Your task to perform on an android device: empty trash in the gmail app Image 0: 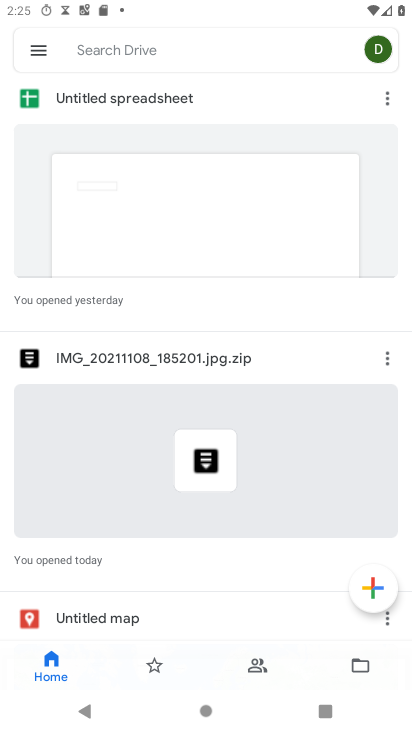
Step 0: press home button
Your task to perform on an android device: empty trash in the gmail app Image 1: 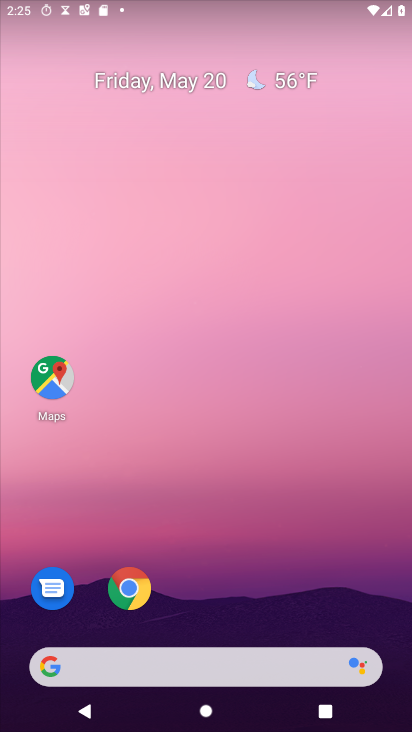
Step 1: drag from (34, 590) to (221, 238)
Your task to perform on an android device: empty trash in the gmail app Image 2: 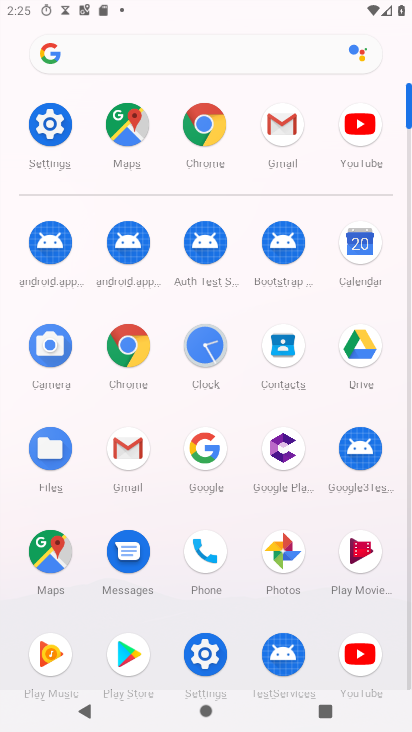
Step 2: click (108, 458)
Your task to perform on an android device: empty trash in the gmail app Image 3: 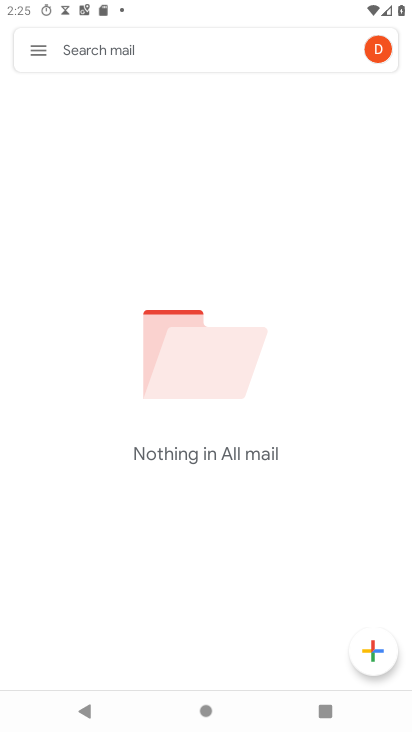
Step 3: click (32, 51)
Your task to perform on an android device: empty trash in the gmail app Image 4: 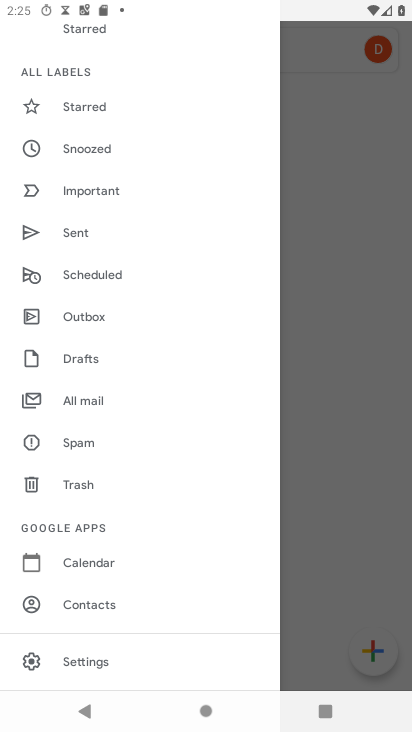
Step 4: click (104, 490)
Your task to perform on an android device: empty trash in the gmail app Image 5: 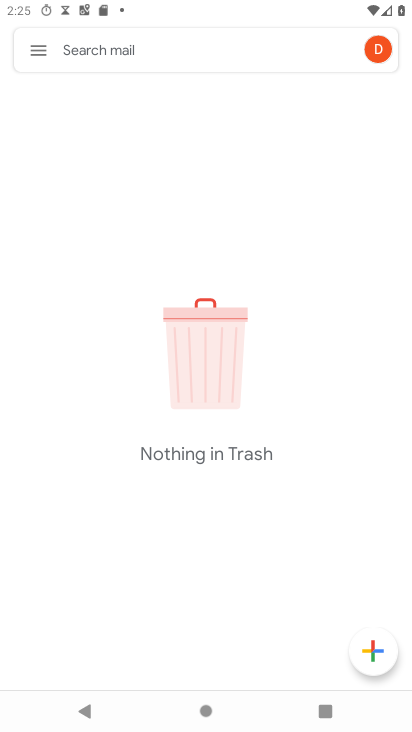
Step 5: task complete